Your task to perform on an android device: empty trash in google photos Image 0: 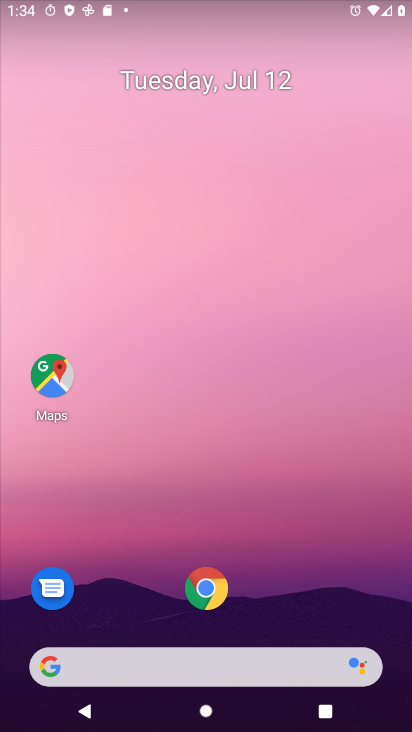
Step 0: press home button
Your task to perform on an android device: empty trash in google photos Image 1: 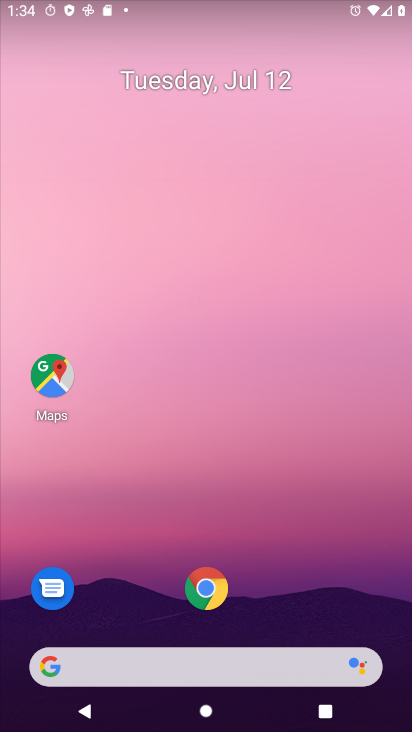
Step 1: drag from (184, 664) to (258, 42)
Your task to perform on an android device: empty trash in google photos Image 2: 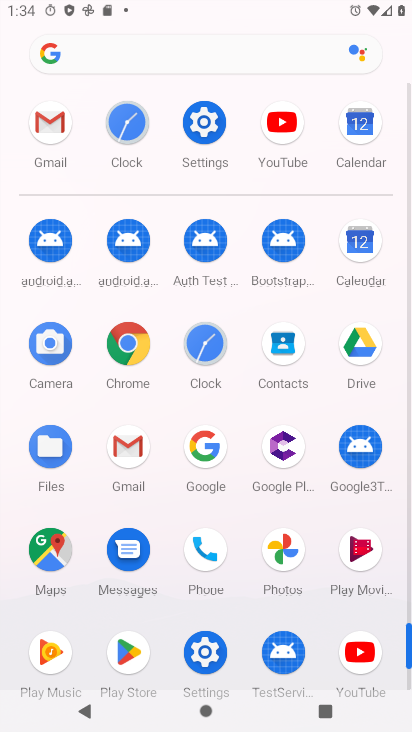
Step 2: click (283, 553)
Your task to perform on an android device: empty trash in google photos Image 3: 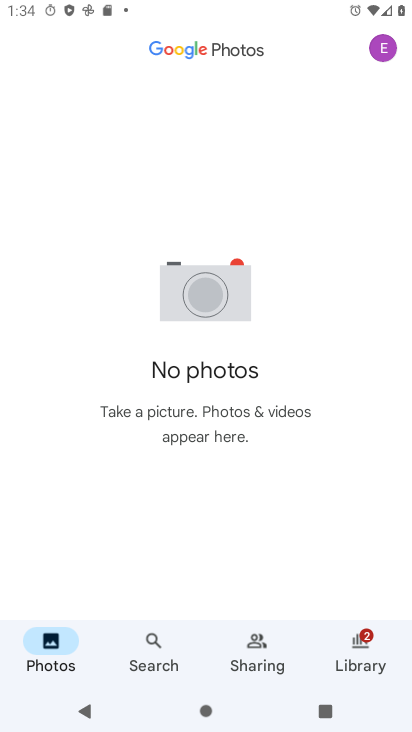
Step 3: click (366, 653)
Your task to perform on an android device: empty trash in google photos Image 4: 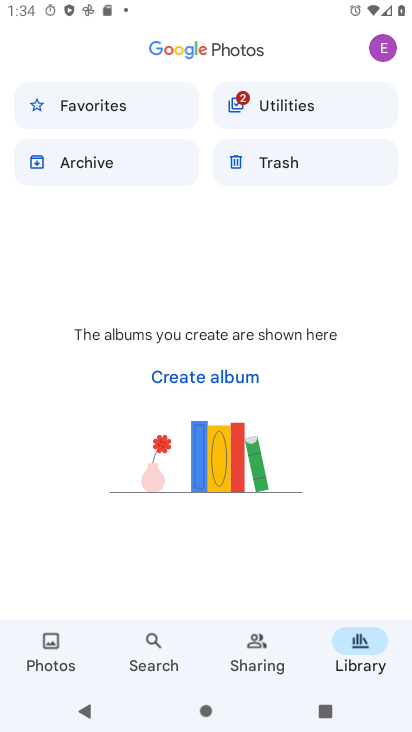
Step 4: click (292, 159)
Your task to perform on an android device: empty trash in google photos Image 5: 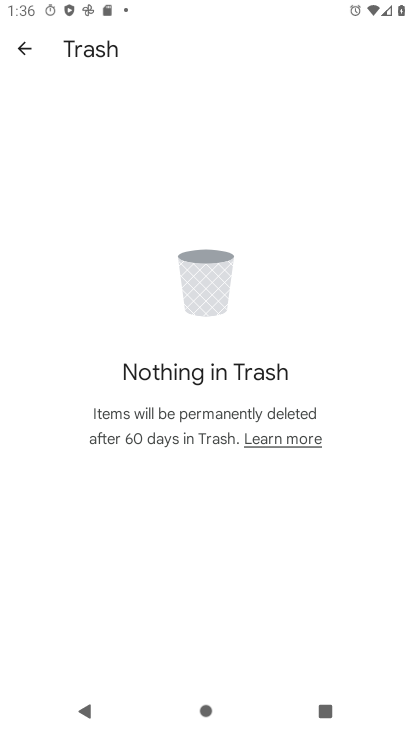
Step 5: task complete